Your task to perform on an android device: change alarm snooze length Image 0: 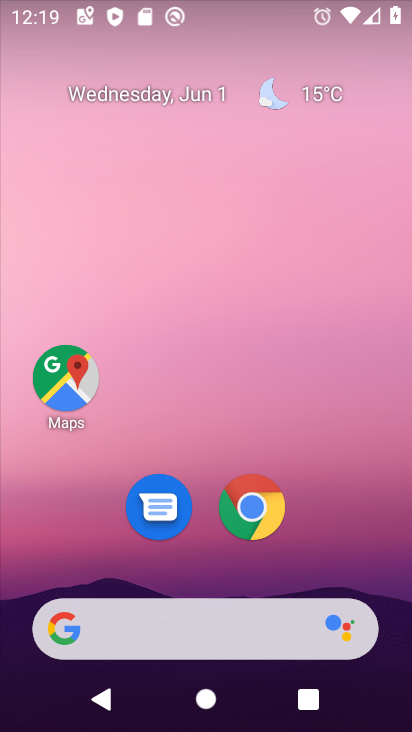
Step 0: drag from (335, 549) to (161, 117)
Your task to perform on an android device: change alarm snooze length Image 1: 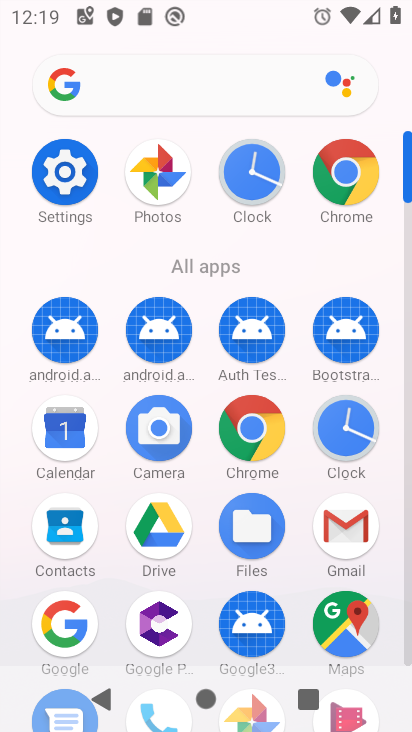
Step 1: click (250, 174)
Your task to perform on an android device: change alarm snooze length Image 2: 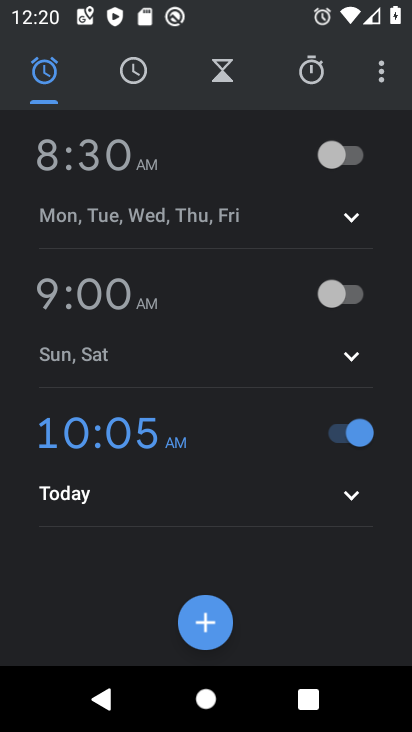
Step 2: click (377, 81)
Your task to perform on an android device: change alarm snooze length Image 3: 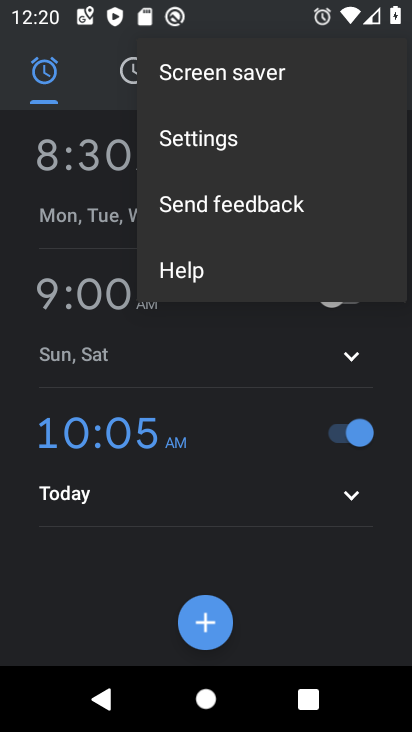
Step 3: click (224, 133)
Your task to perform on an android device: change alarm snooze length Image 4: 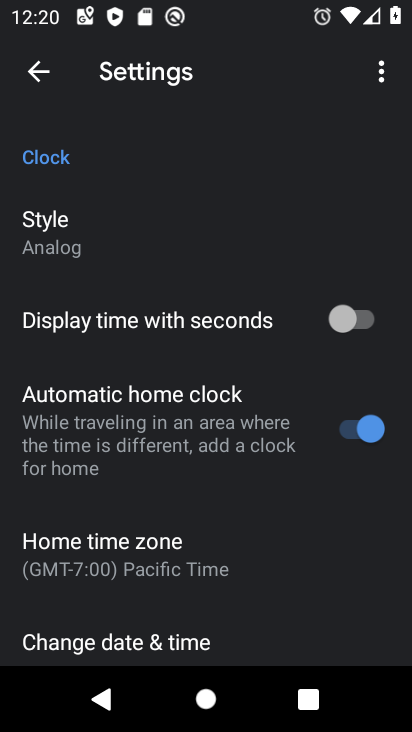
Step 4: drag from (261, 601) to (238, 326)
Your task to perform on an android device: change alarm snooze length Image 5: 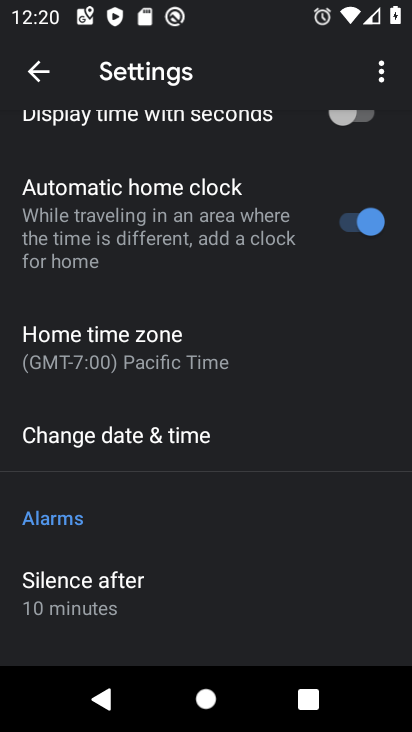
Step 5: drag from (208, 489) to (142, 267)
Your task to perform on an android device: change alarm snooze length Image 6: 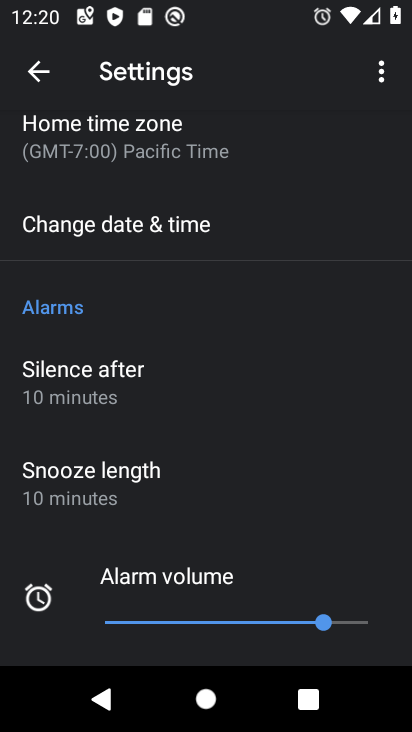
Step 6: click (140, 495)
Your task to perform on an android device: change alarm snooze length Image 7: 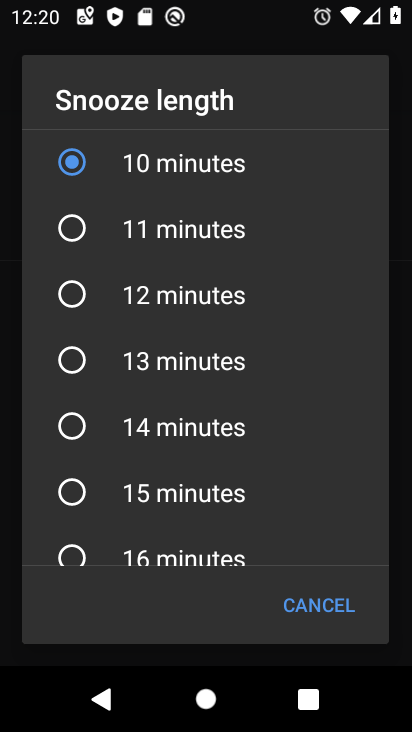
Step 7: drag from (140, 495) to (174, 317)
Your task to perform on an android device: change alarm snooze length Image 8: 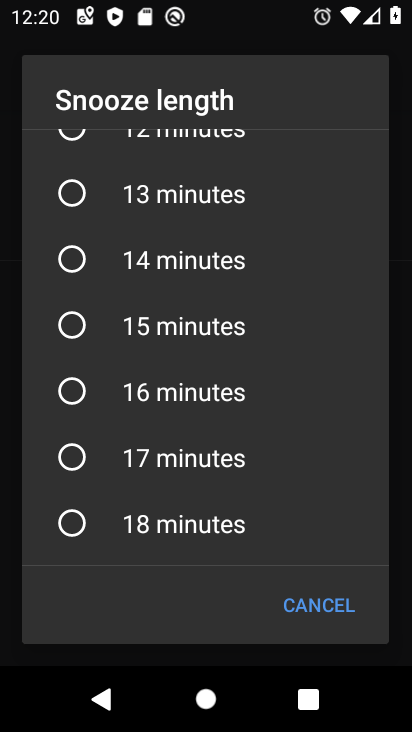
Step 8: drag from (124, 468) to (155, 378)
Your task to perform on an android device: change alarm snooze length Image 9: 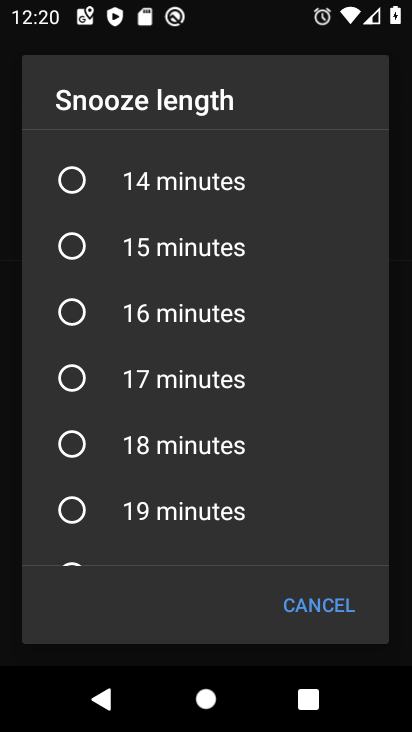
Step 9: click (78, 444)
Your task to perform on an android device: change alarm snooze length Image 10: 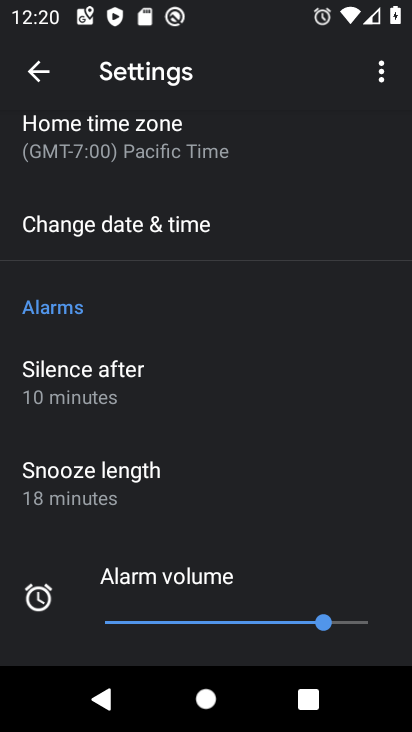
Step 10: task complete